Your task to perform on an android device: set default search engine in the chrome app Image 0: 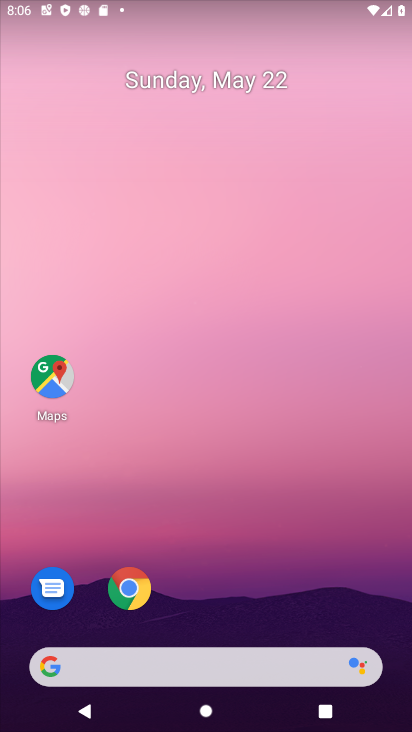
Step 0: click (125, 585)
Your task to perform on an android device: set default search engine in the chrome app Image 1: 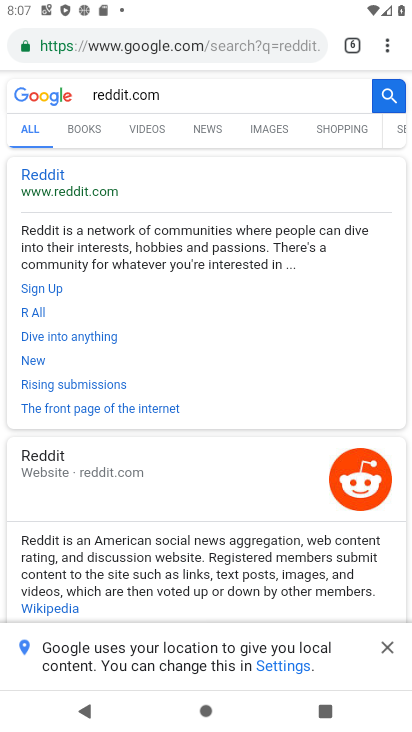
Step 1: click (384, 44)
Your task to perform on an android device: set default search engine in the chrome app Image 2: 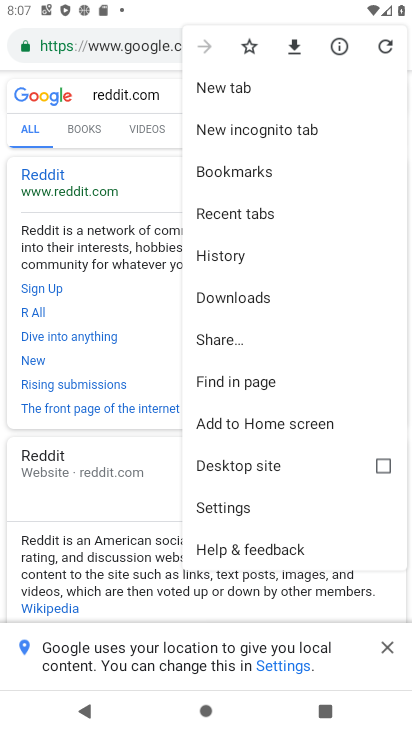
Step 2: click (231, 505)
Your task to perform on an android device: set default search engine in the chrome app Image 3: 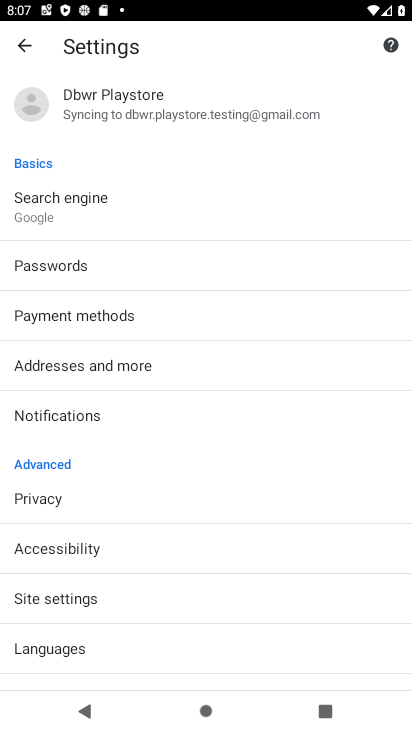
Step 3: click (66, 196)
Your task to perform on an android device: set default search engine in the chrome app Image 4: 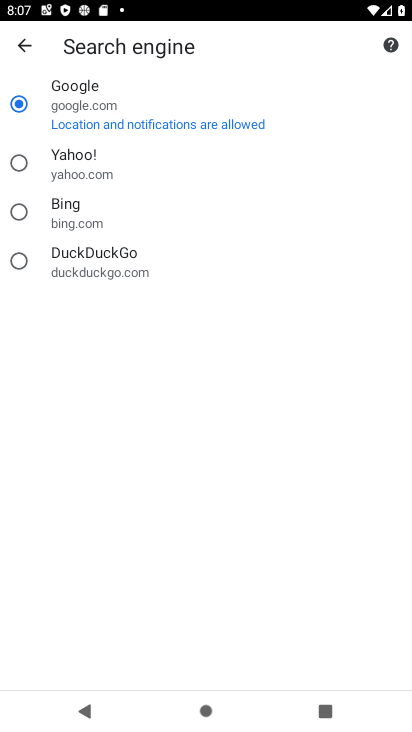
Step 4: click (16, 157)
Your task to perform on an android device: set default search engine in the chrome app Image 5: 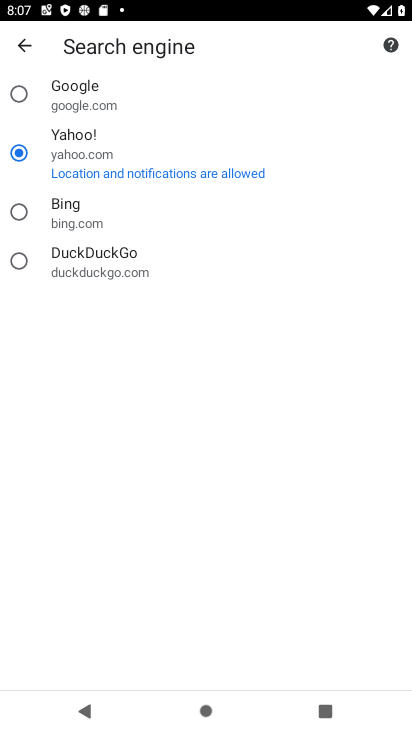
Step 5: task complete